Your task to perform on an android device: Open ESPN.com Image 0: 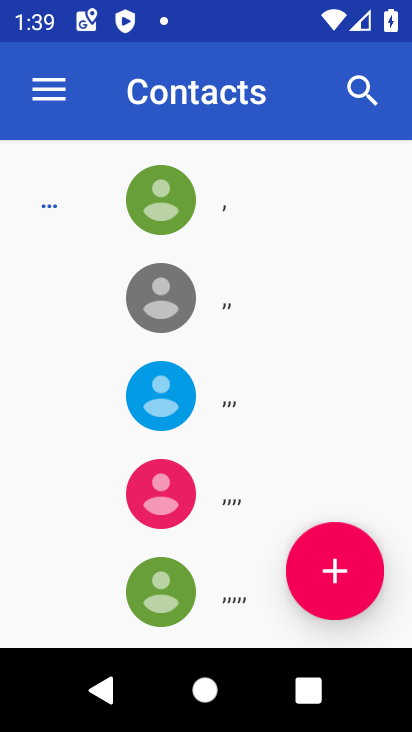
Step 0: press home button
Your task to perform on an android device: Open ESPN.com Image 1: 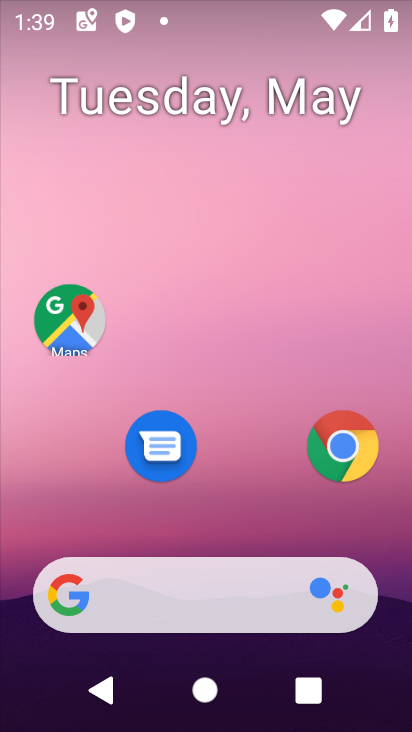
Step 1: click (334, 461)
Your task to perform on an android device: Open ESPN.com Image 2: 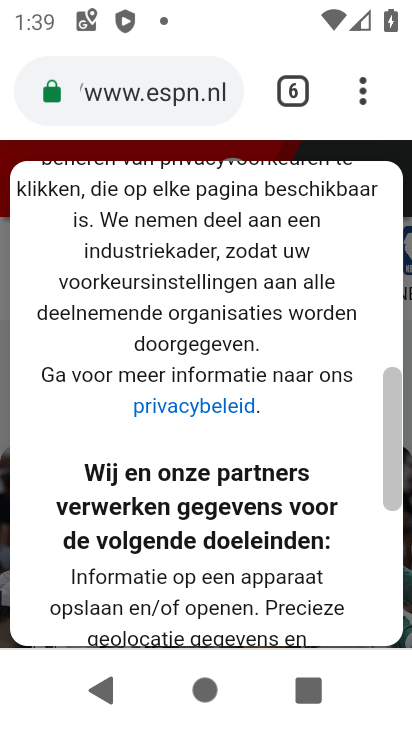
Step 2: click (292, 105)
Your task to perform on an android device: Open ESPN.com Image 3: 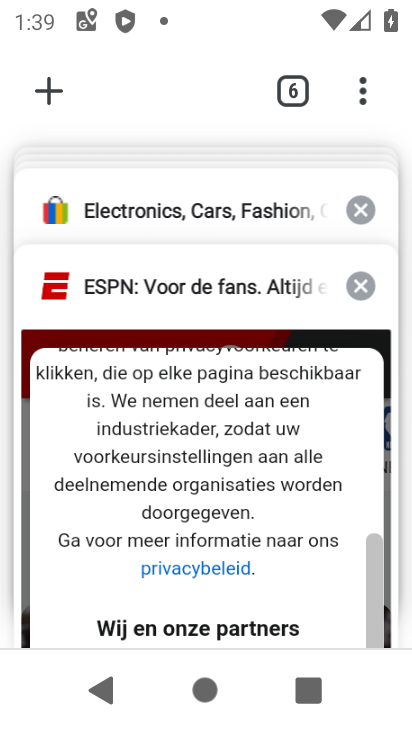
Step 3: click (46, 89)
Your task to perform on an android device: Open ESPN.com Image 4: 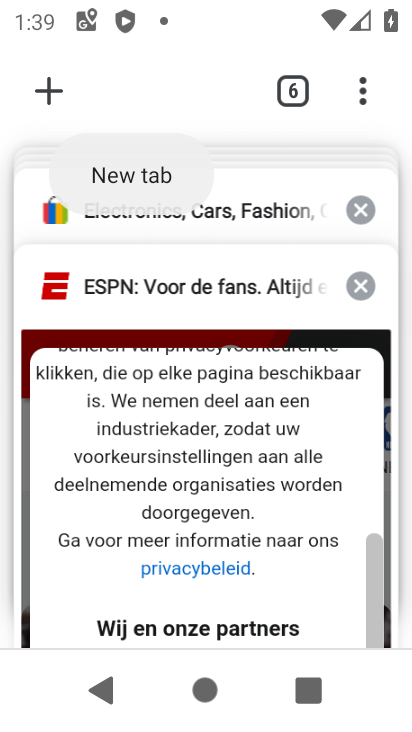
Step 4: click (141, 321)
Your task to perform on an android device: Open ESPN.com Image 5: 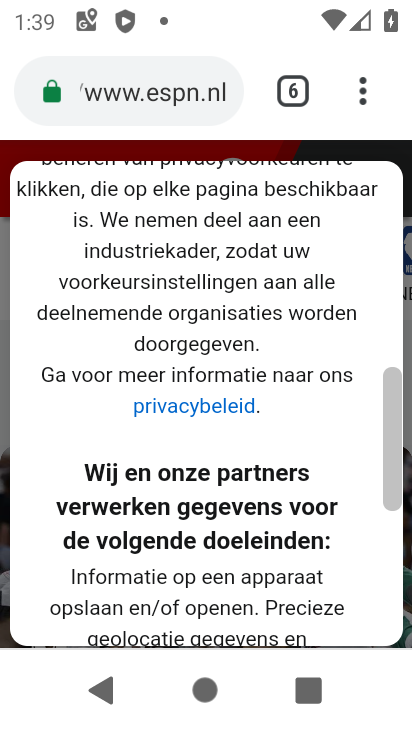
Step 5: task complete